Your task to perform on an android device: Open ESPN.com Image 0: 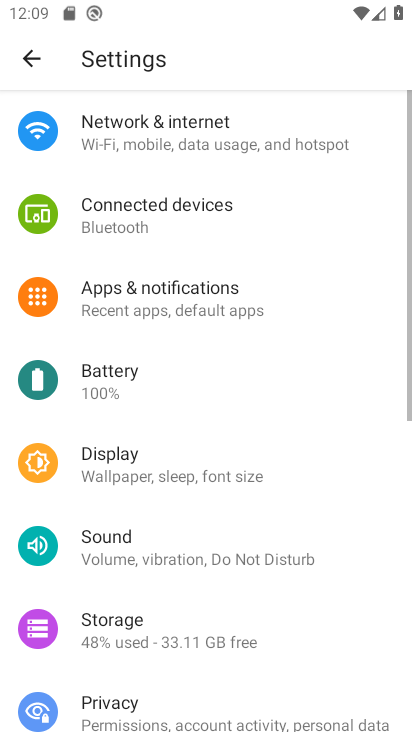
Step 0: press home button
Your task to perform on an android device: Open ESPN.com Image 1: 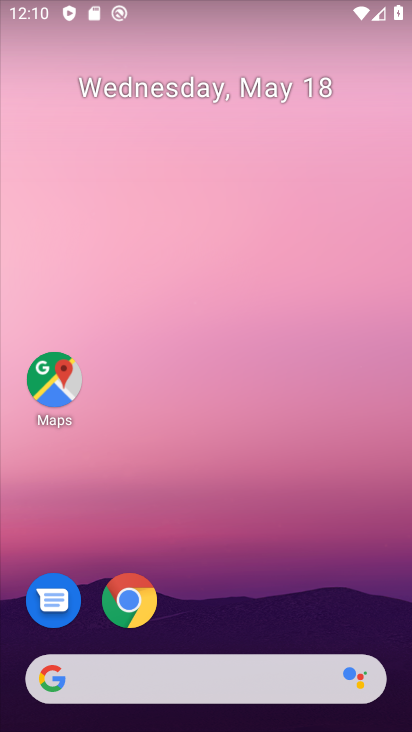
Step 1: click (139, 612)
Your task to perform on an android device: Open ESPN.com Image 2: 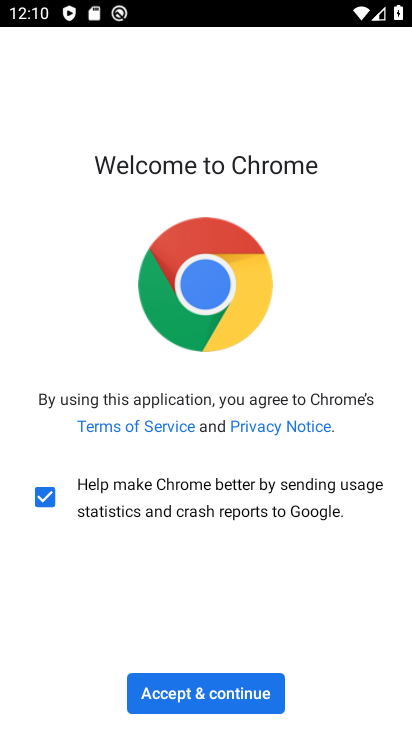
Step 2: click (188, 698)
Your task to perform on an android device: Open ESPN.com Image 3: 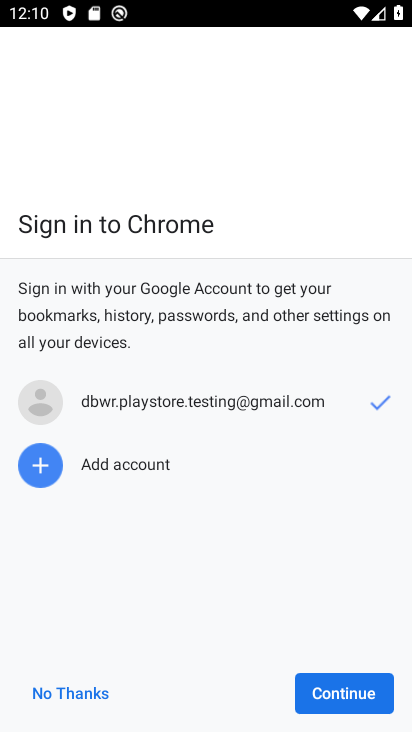
Step 3: click (355, 697)
Your task to perform on an android device: Open ESPN.com Image 4: 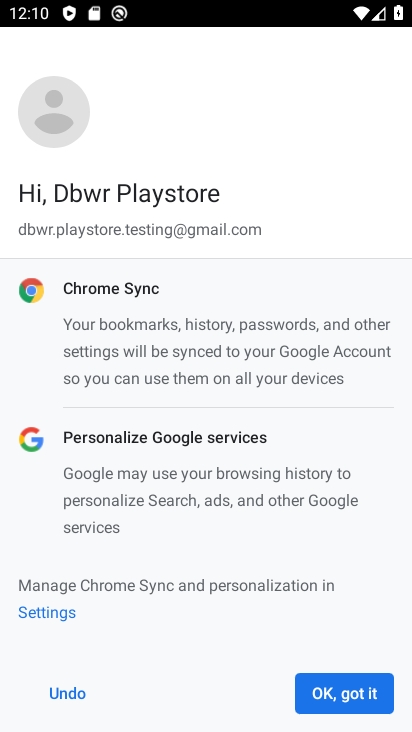
Step 4: click (341, 696)
Your task to perform on an android device: Open ESPN.com Image 5: 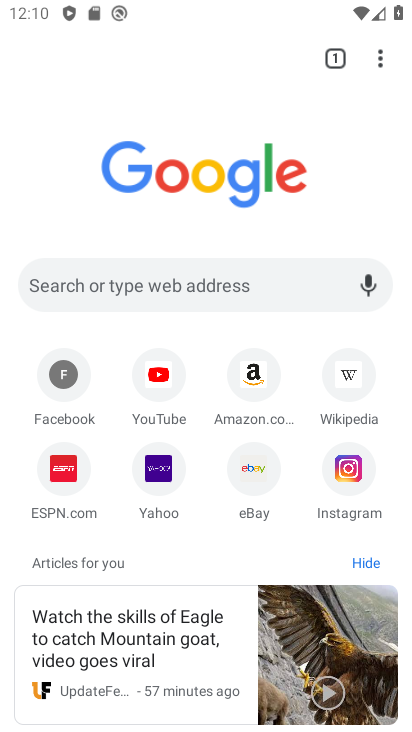
Step 5: click (77, 469)
Your task to perform on an android device: Open ESPN.com Image 6: 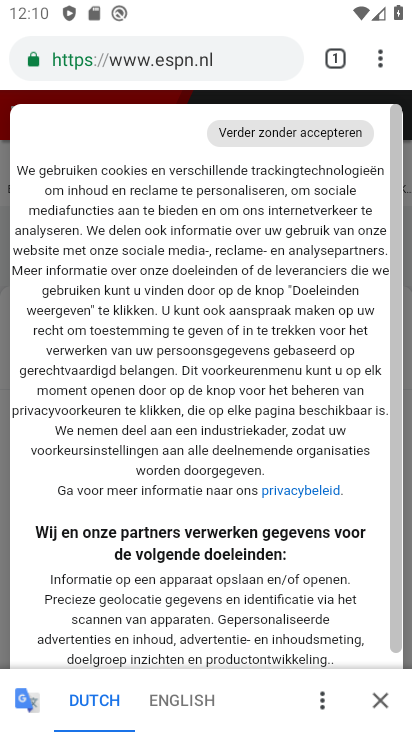
Step 6: task complete